Your task to perform on an android device: turn on wifi Image 0: 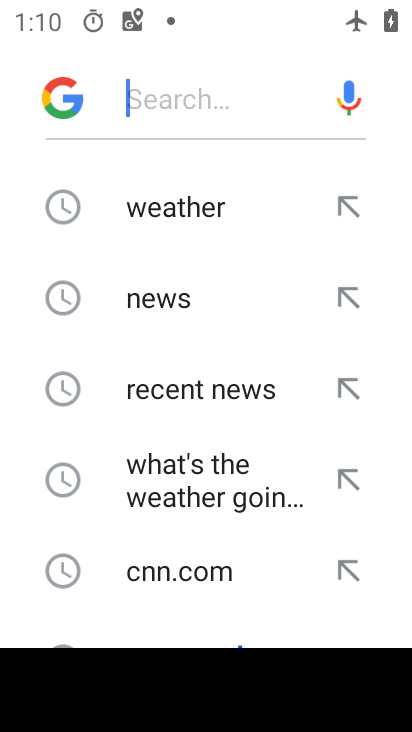
Step 0: press home button
Your task to perform on an android device: turn on wifi Image 1: 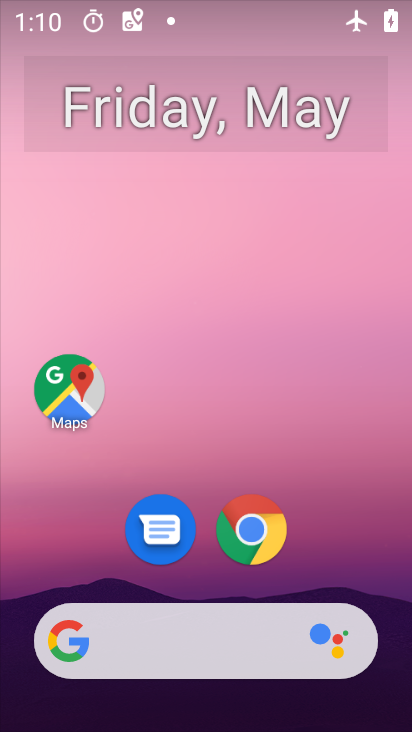
Step 1: drag from (215, 443) to (174, 264)
Your task to perform on an android device: turn on wifi Image 2: 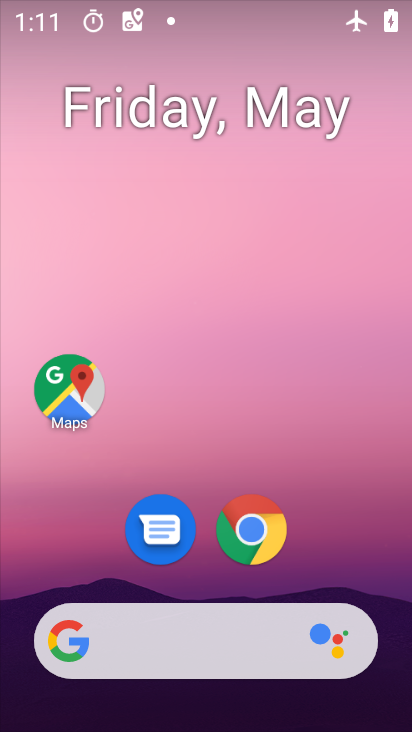
Step 2: drag from (243, 552) to (92, 76)
Your task to perform on an android device: turn on wifi Image 3: 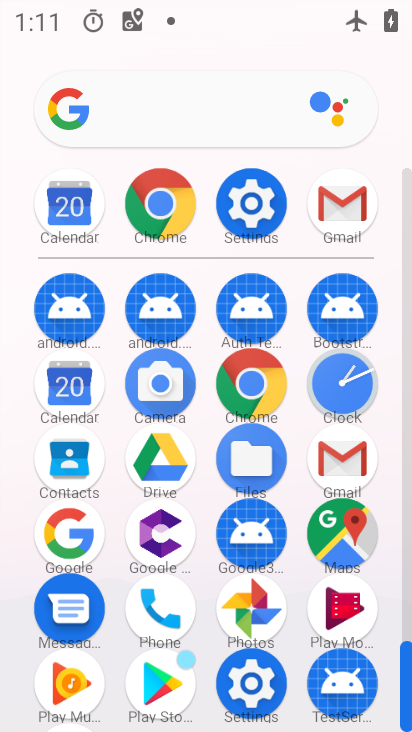
Step 3: click (259, 199)
Your task to perform on an android device: turn on wifi Image 4: 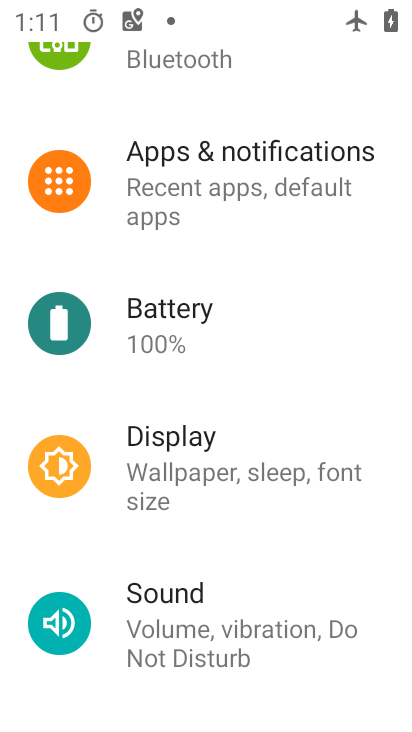
Step 4: drag from (258, 198) to (355, 617)
Your task to perform on an android device: turn on wifi Image 5: 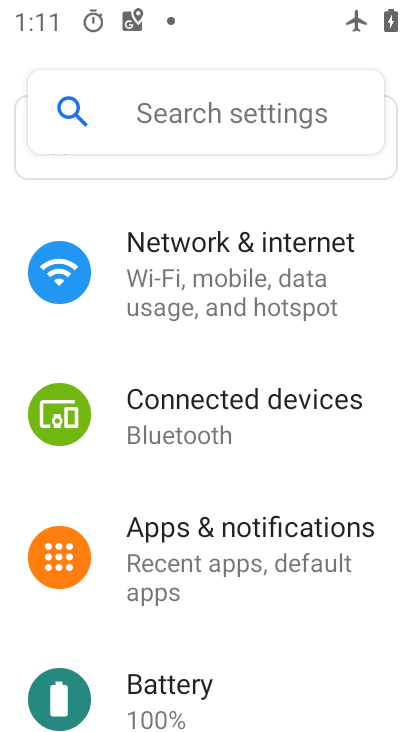
Step 5: drag from (196, 364) to (258, 656)
Your task to perform on an android device: turn on wifi Image 6: 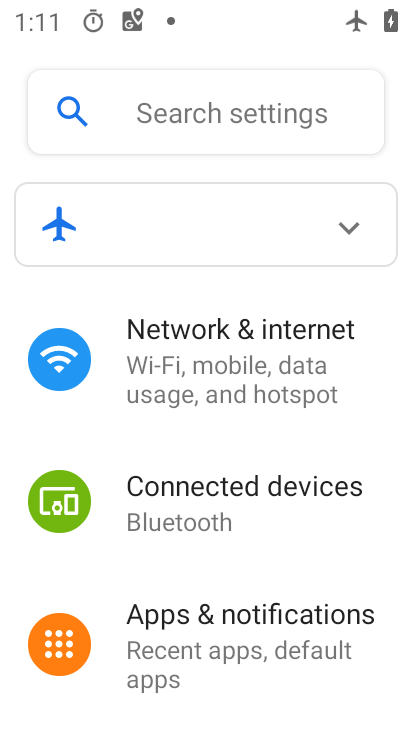
Step 6: click (161, 397)
Your task to perform on an android device: turn on wifi Image 7: 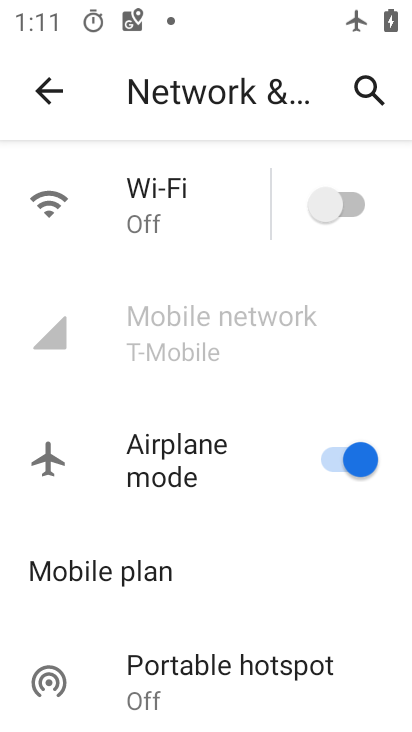
Step 7: click (361, 198)
Your task to perform on an android device: turn on wifi Image 8: 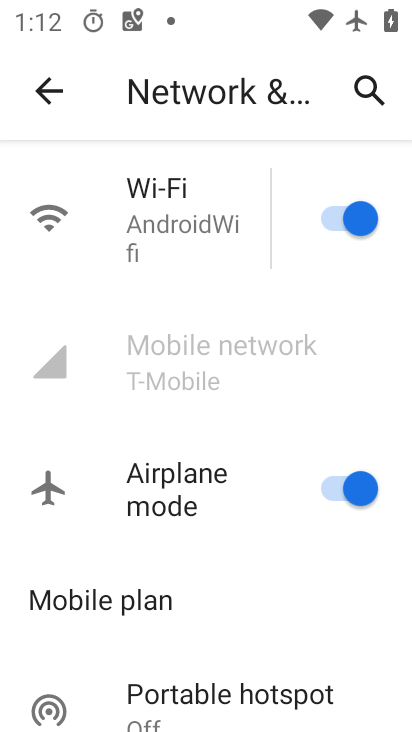
Step 8: task complete